Your task to perform on an android device: find photos in the google photos app Image 0: 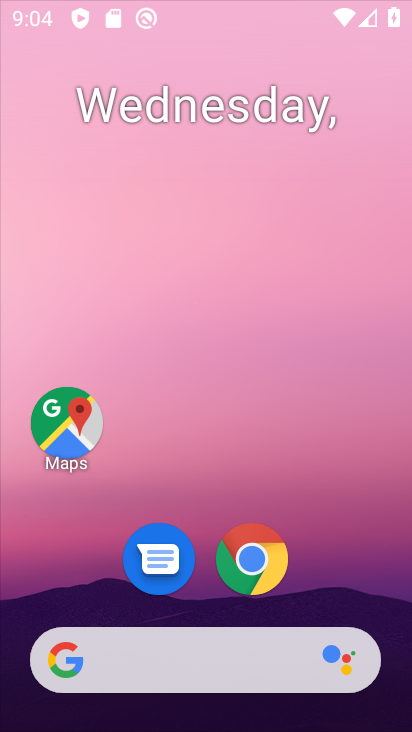
Step 0: click (241, 549)
Your task to perform on an android device: find photos in the google photos app Image 1: 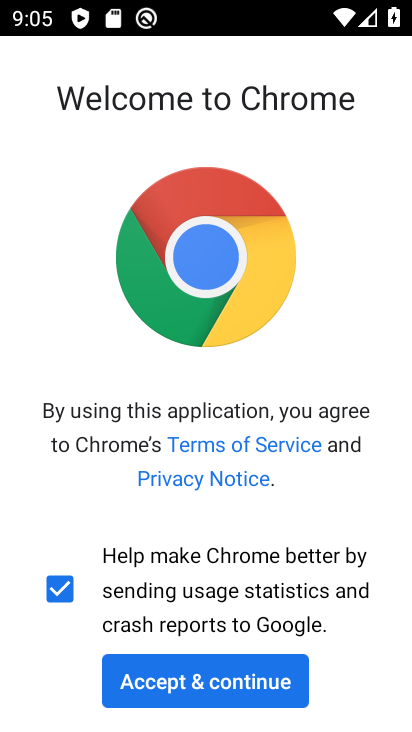
Step 1: press home button
Your task to perform on an android device: find photos in the google photos app Image 2: 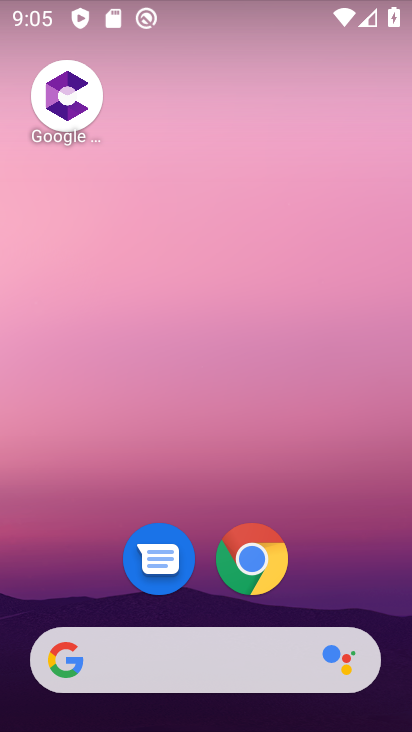
Step 2: drag from (342, 571) to (328, 43)
Your task to perform on an android device: find photos in the google photos app Image 3: 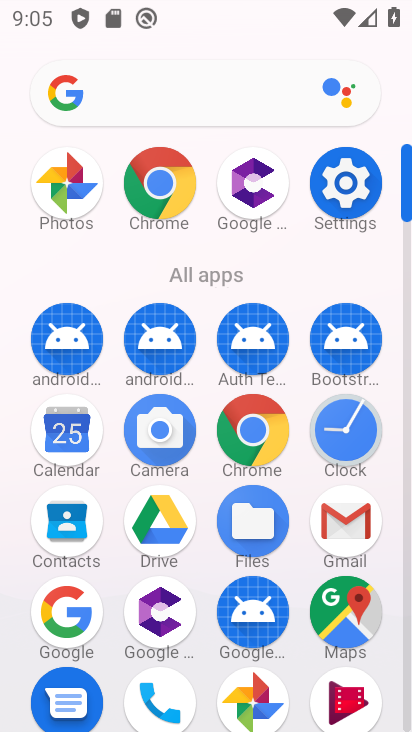
Step 3: click (249, 685)
Your task to perform on an android device: find photos in the google photos app Image 4: 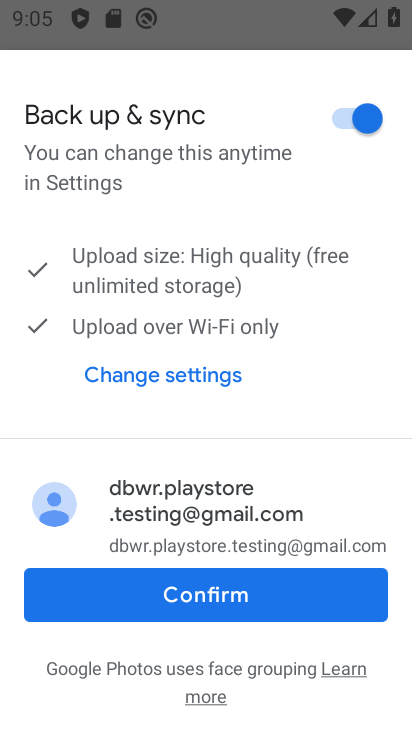
Step 4: click (244, 581)
Your task to perform on an android device: find photos in the google photos app Image 5: 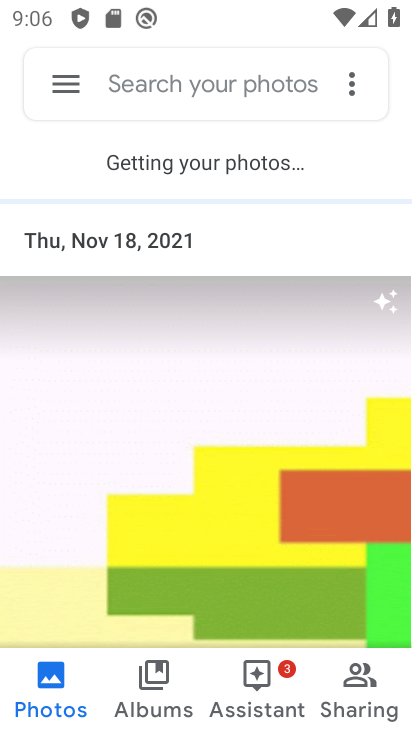
Step 5: task complete